Your task to perform on an android device: change the clock display to digital Image 0: 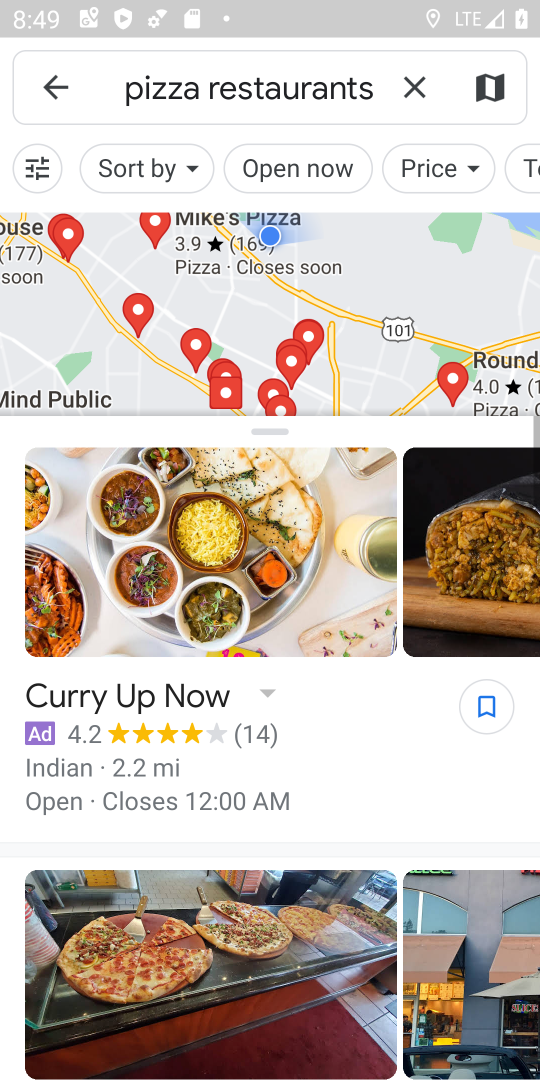
Step 0: press home button
Your task to perform on an android device: change the clock display to digital Image 1: 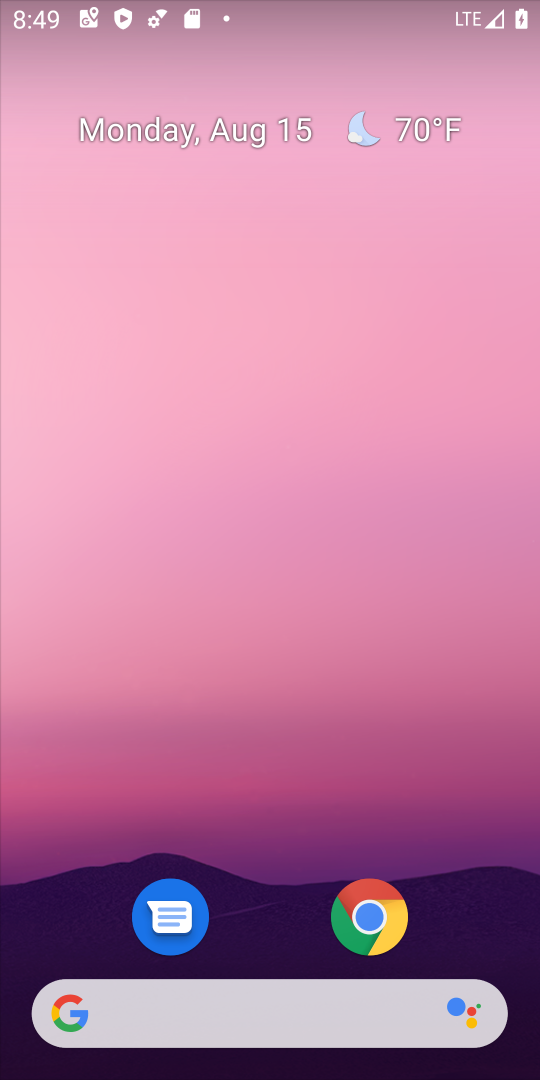
Step 1: drag from (265, 770) to (347, 0)
Your task to perform on an android device: change the clock display to digital Image 2: 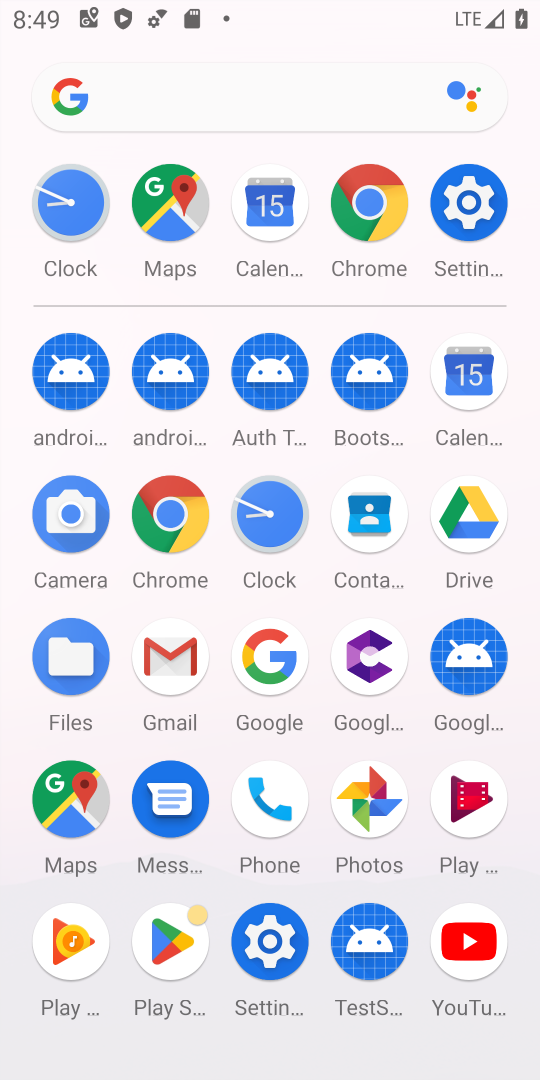
Step 2: click (54, 210)
Your task to perform on an android device: change the clock display to digital Image 3: 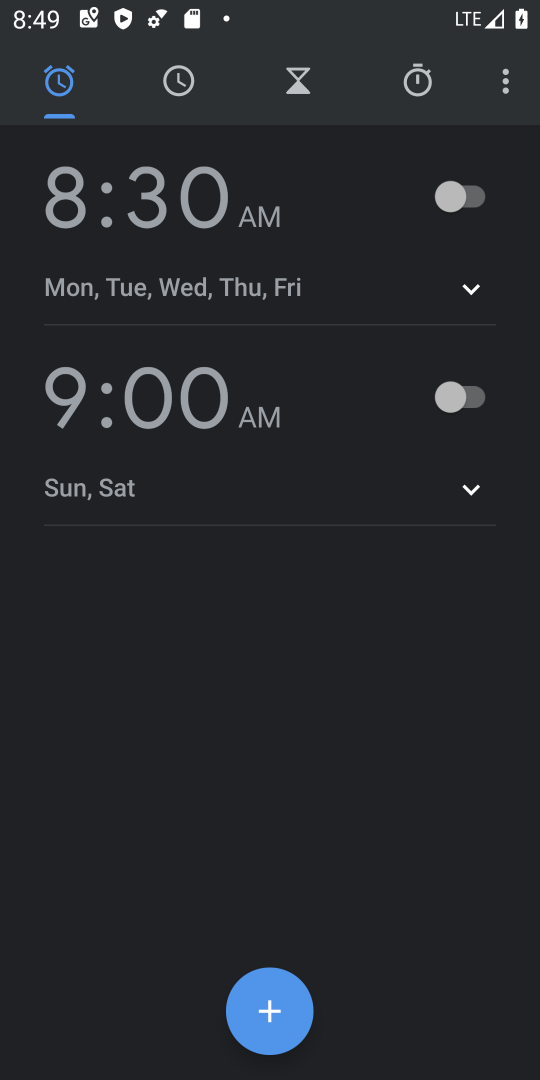
Step 3: click (506, 90)
Your task to perform on an android device: change the clock display to digital Image 4: 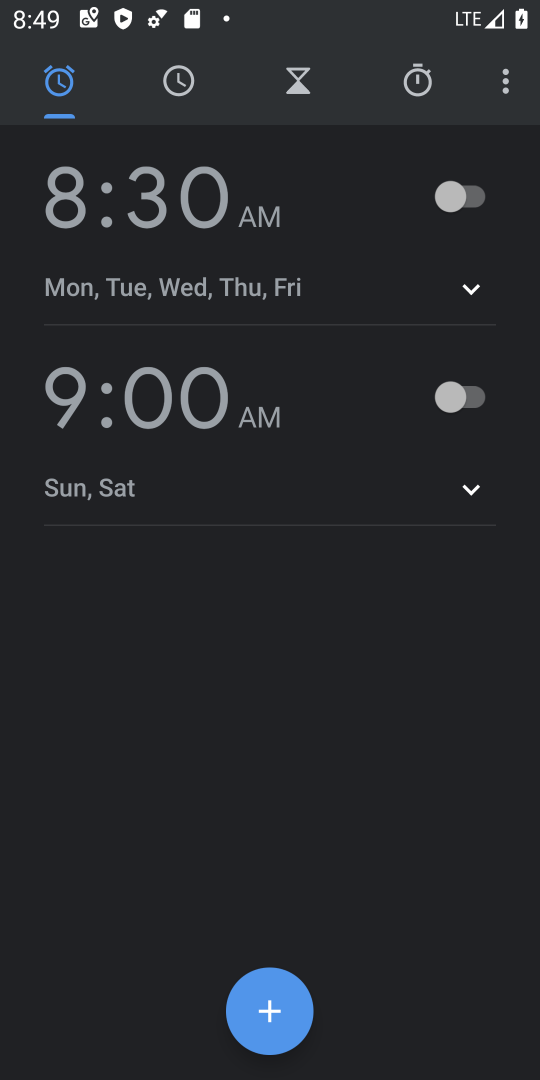
Step 4: click (181, 86)
Your task to perform on an android device: change the clock display to digital Image 5: 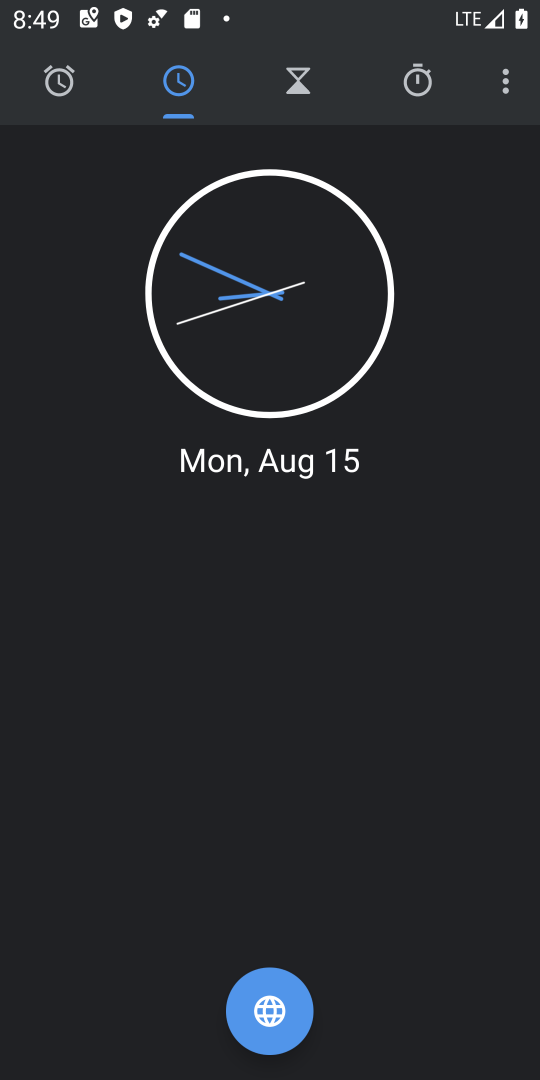
Step 5: click (502, 85)
Your task to perform on an android device: change the clock display to digital Image 6: 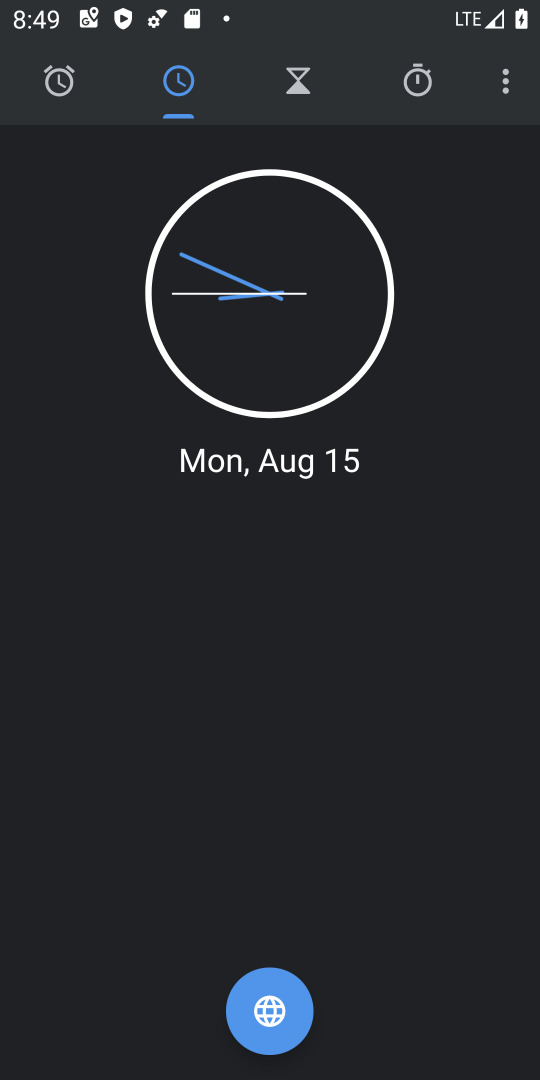
Step 6: click (502, 87)
Your task to perform on an android device: change the clock display to digital Image 7: 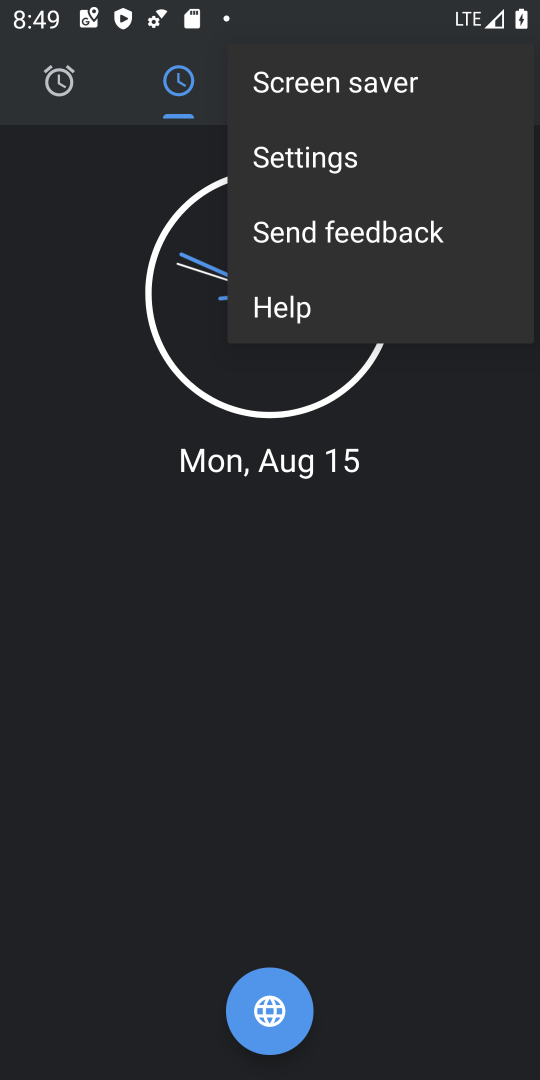
Step 7: click (402, 163)
Your task to perform on an android device: change the clock display to digital Image 8: 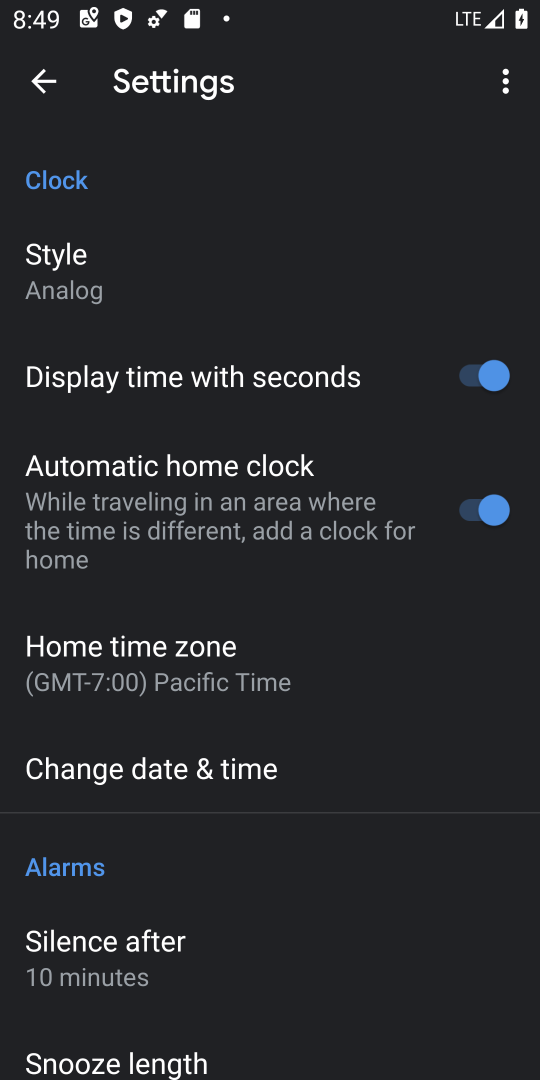
Step 8: click (112, 264)
Your task to perform on an android device: change the clock display to digital Image 9: 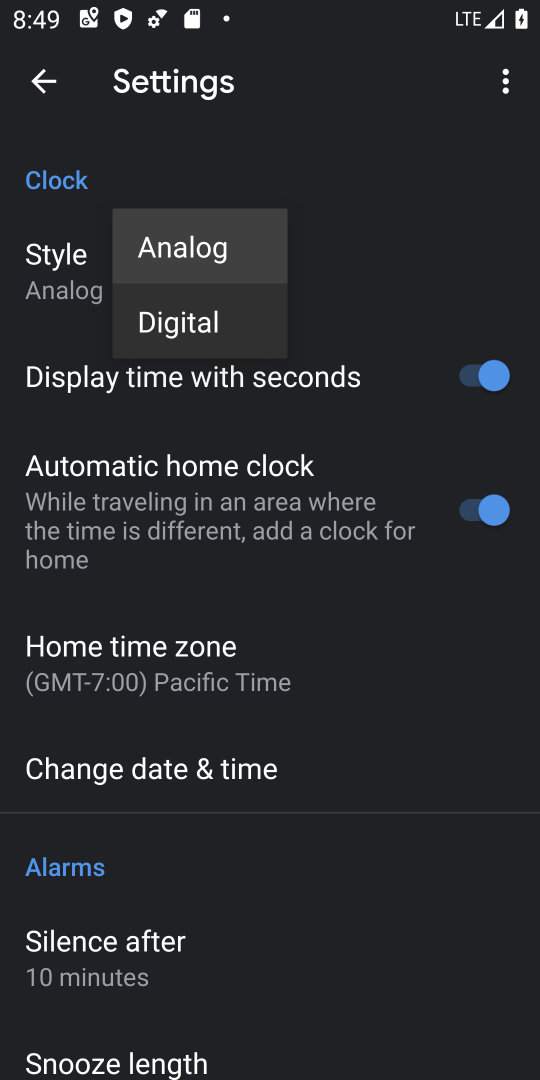
Step 9: click (173, 327)
Your task to perform on an android device: change the clock display to digital Image 10: 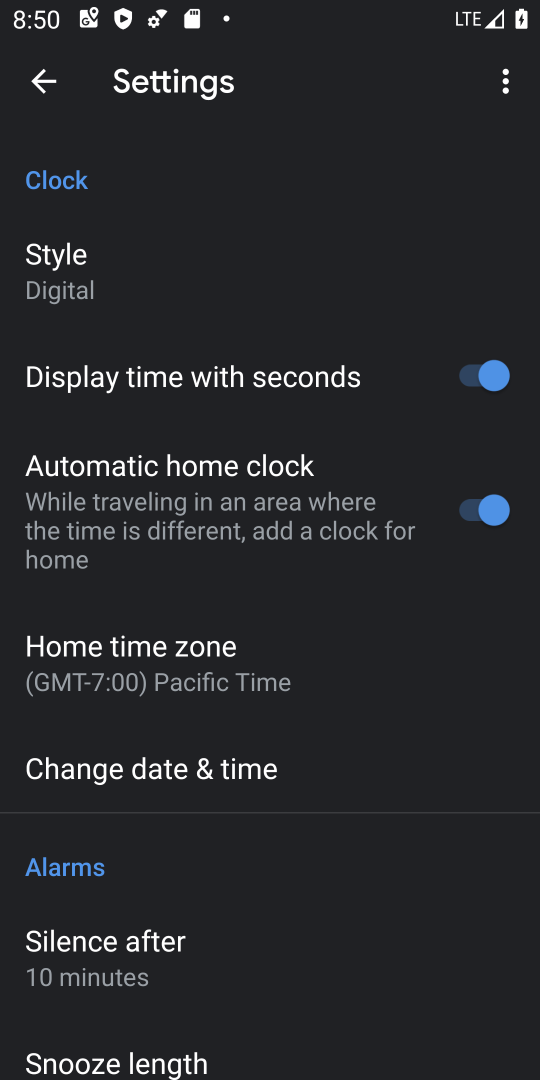
Step 10: click (50, 86)
Your task to perform on an android device: change the clock display to digital Image 11: 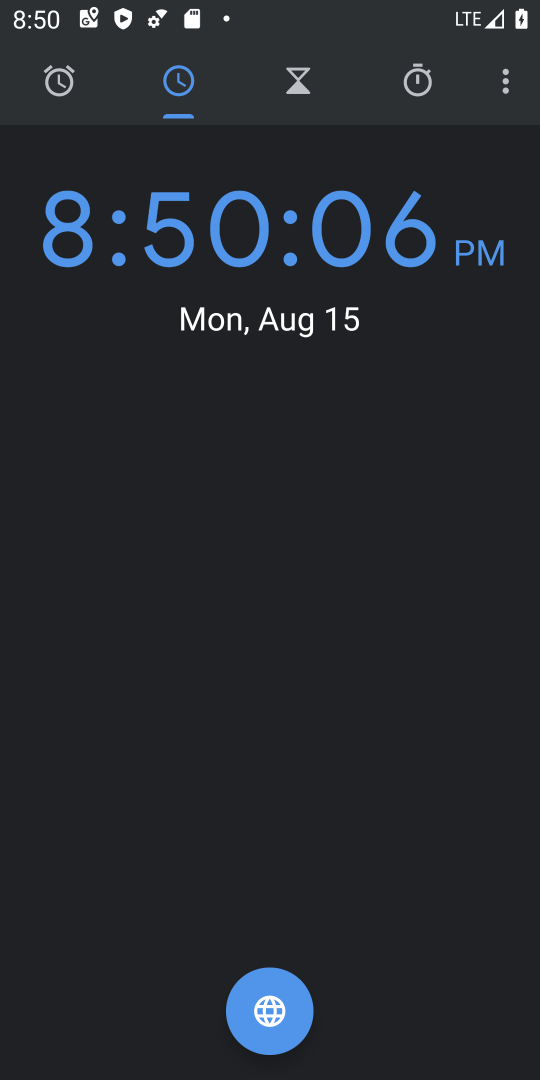
Step 11: task complete